Your task to perform on an android device: Search for the best rated kitchen reno kits on Lowes.com Image 0: 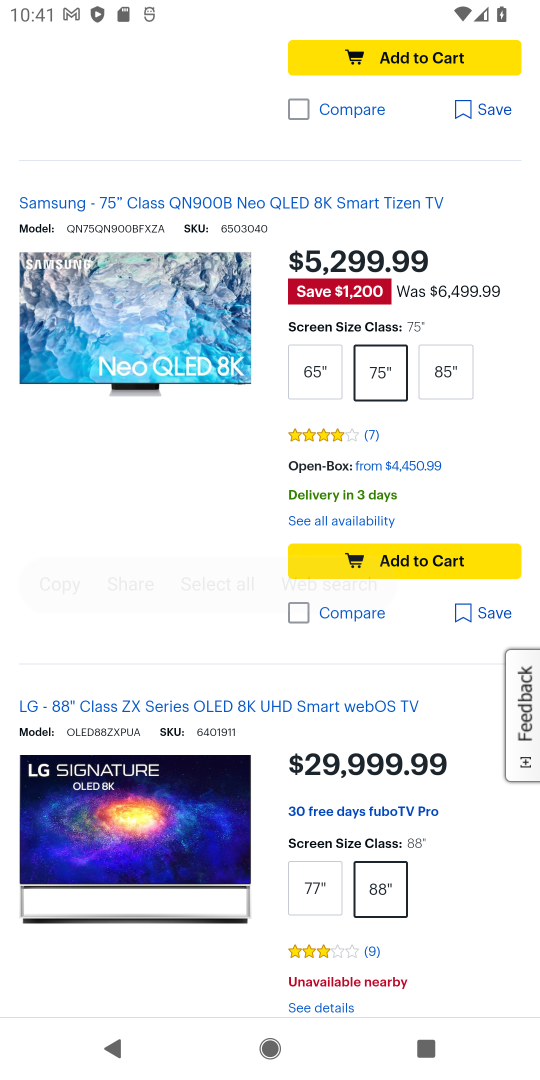
Step 0: press home button
Your task to perform on an android device: Search for the best rated kitchen reno kits on Lowes.com Image 1: 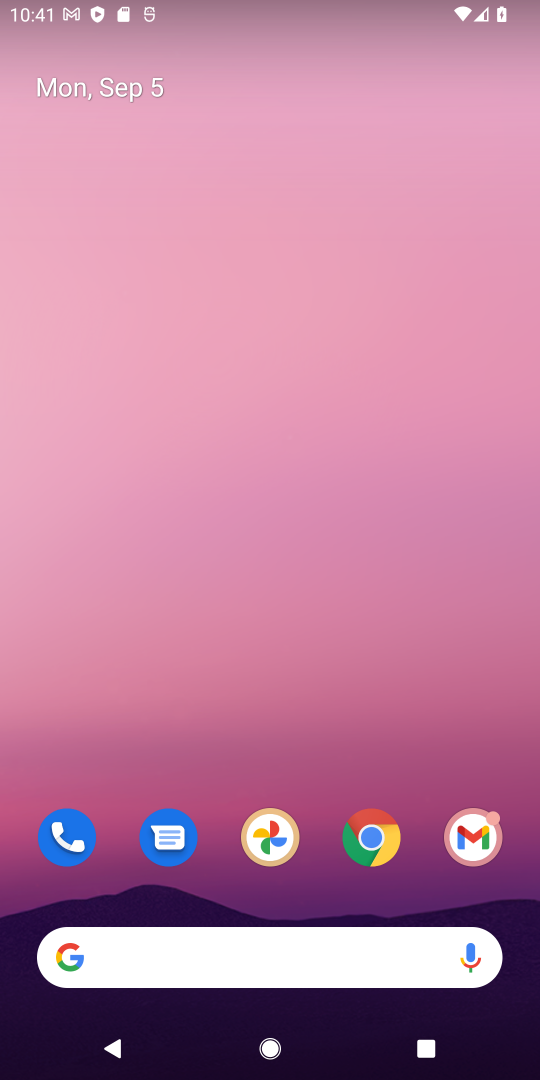
Step 1: drag from (312, 893) to (298, 241)
Your task to perform on an android device: Search for the best rated kitchen reno kits on Lowes.com Image 2: 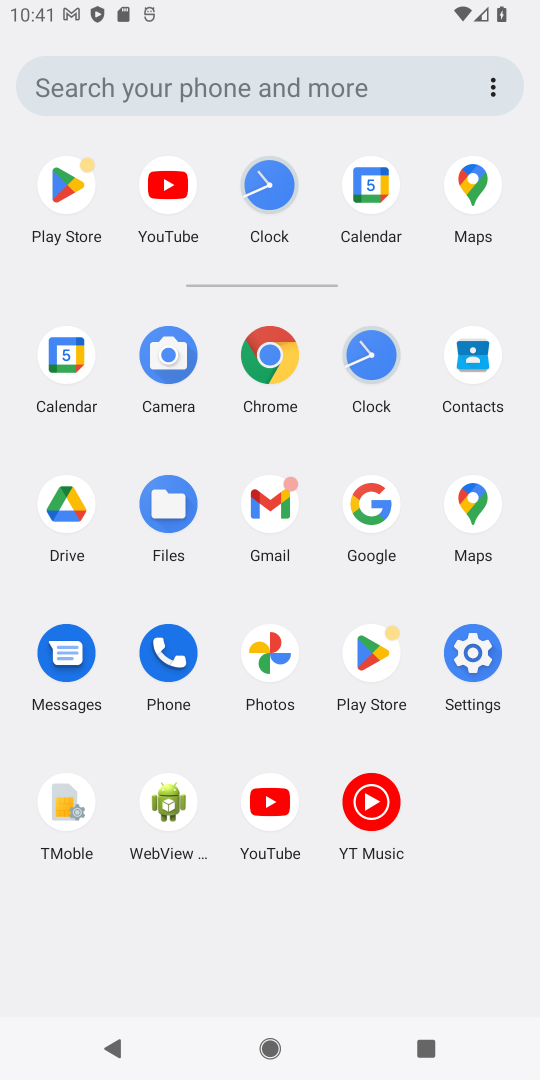
Step 2: click (276, 363)
Your task to perform on an android device: Search for the best rated kitchen reno kits on Lowes.com Image 3: 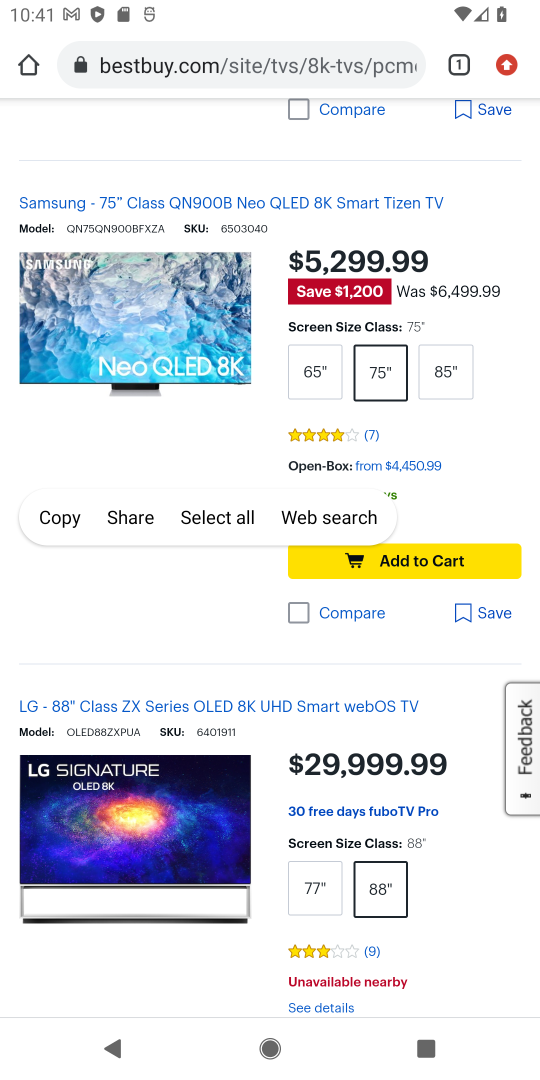
Step 3: click (160, 56)
Your task to perform on an android device: Search for the best rated kitchen reno kits on Lowes.com Image 4: 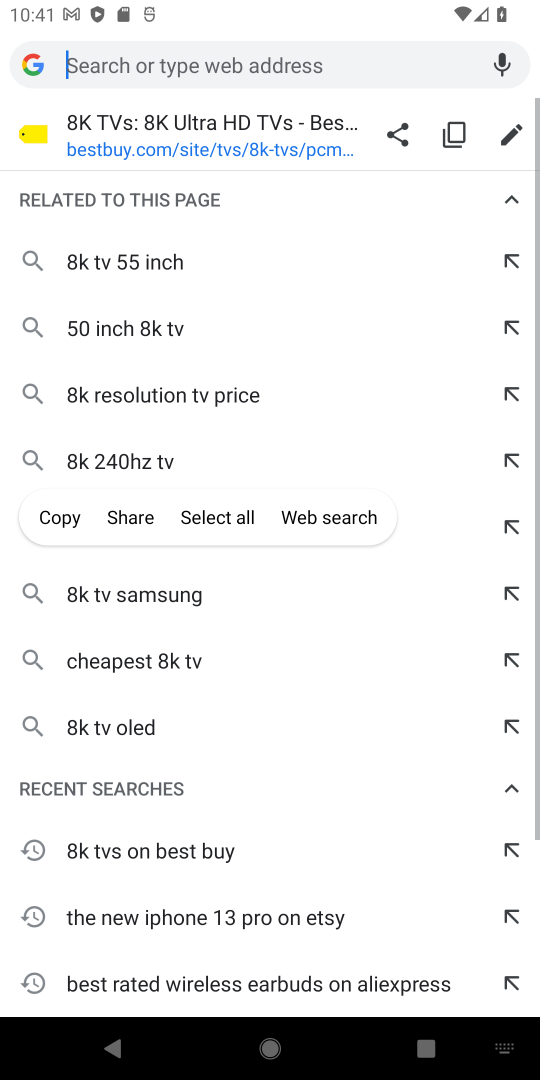
Step 4: type "best rated kitchen reno kits on Lowes.com"
Your task to perform on an android device: Search for the best rated kitchen reno kits on Lowes.com Image 5: 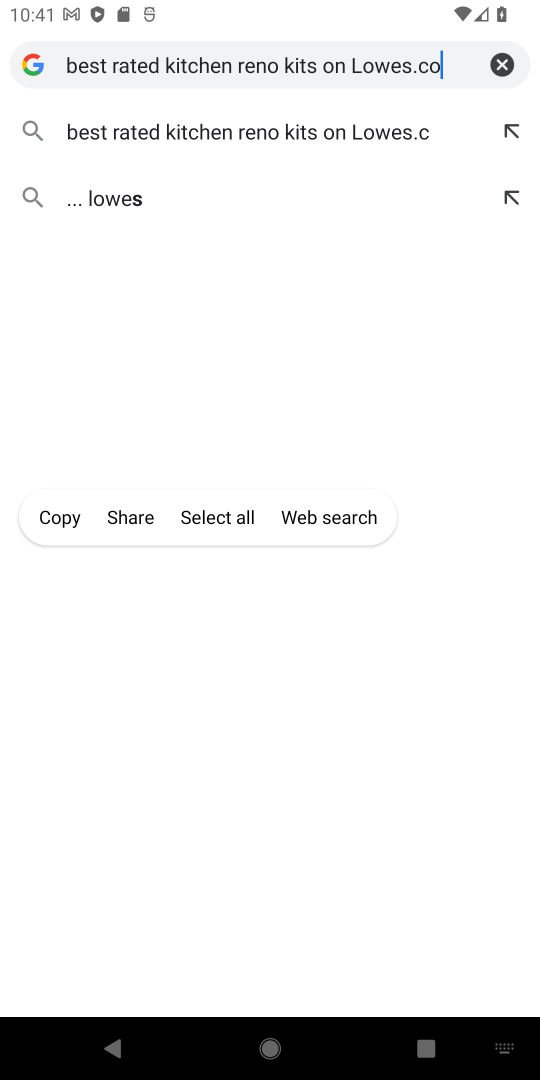
Step 5: type ""
Your task to perform on an android device: Search for the best rated kitchen reno kits on Lowes.com Image 6: 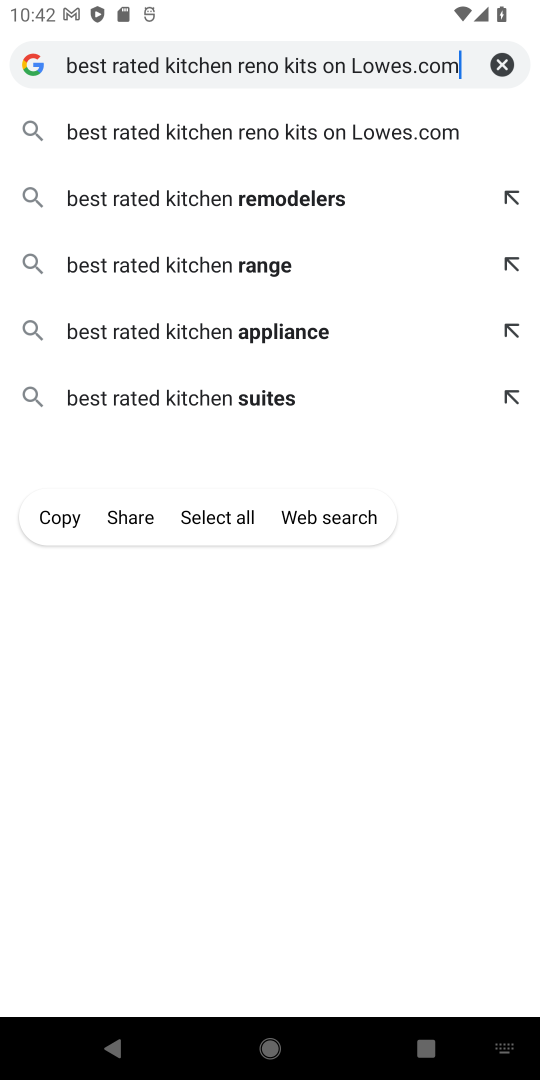
Step 6: click (320, 132)
Your task to perform on an android device: Search for the best rated kitchen reno kits on Lowes.com Image 7: 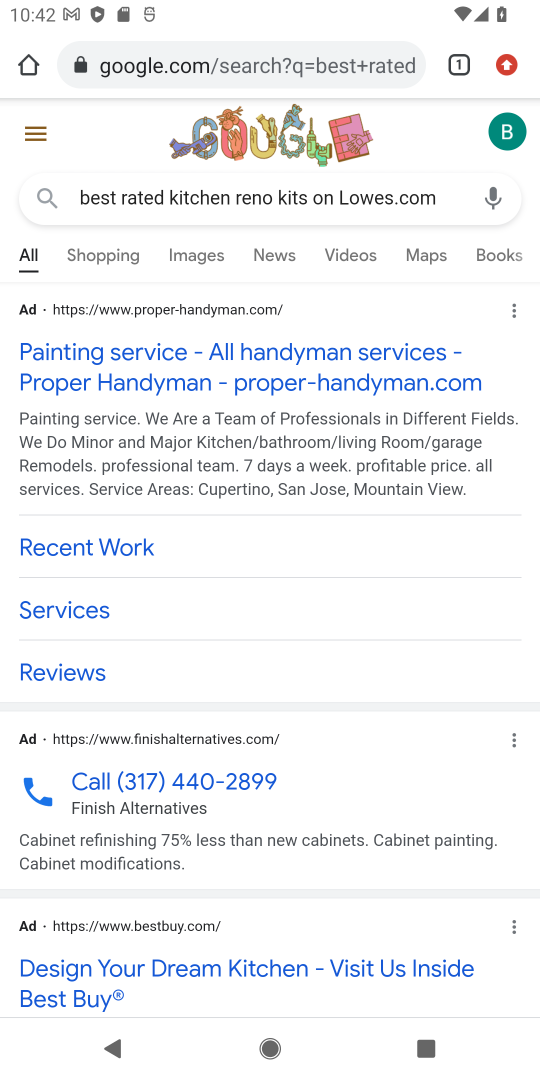
Step 7: drag from (291, 912) to (371, 232)
Your task to perform on an android device: Search for the best rated kitchen reno kits on Lowes.com Image 8: 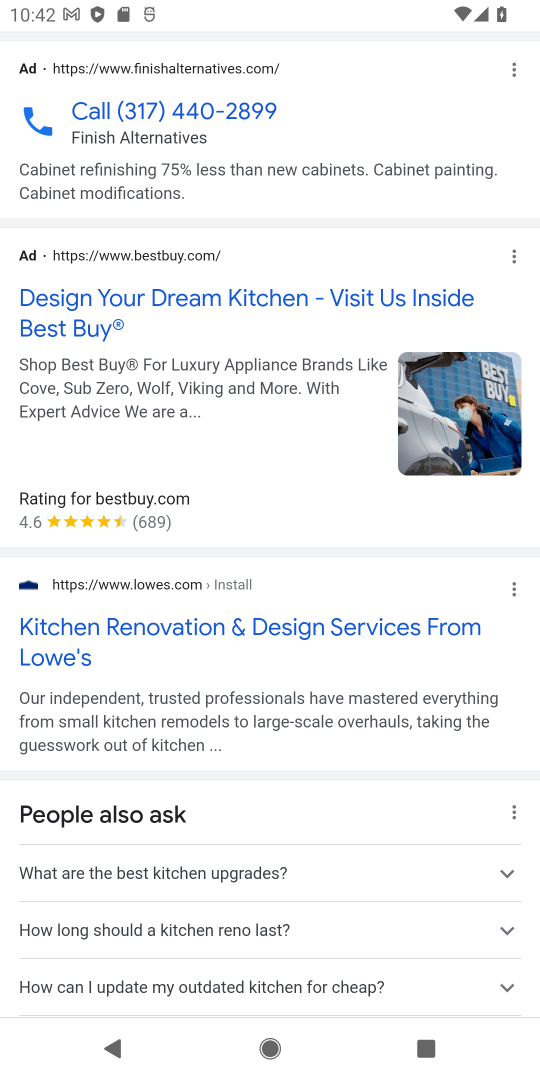
Step 8: drag from (252, 925) to (342, 320)
Your task to perform on an android device: Search for the best rated kitchen reno kits on Lowes.com Image 9: 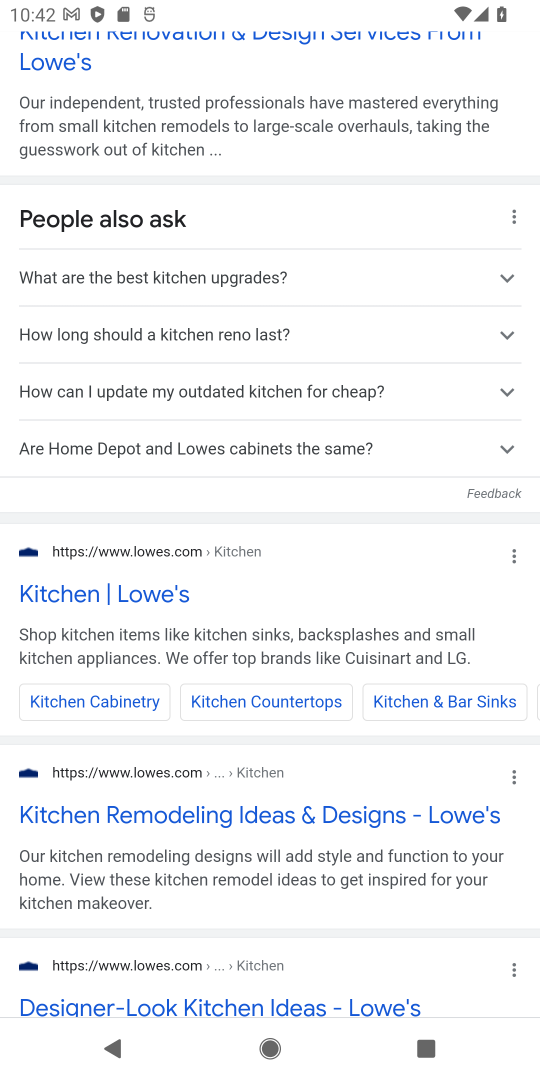
Step 9: drag from (311, 945) to (290, 1001)
Your task to perform on an android device: Search for the best rated kitchen reno kits on Lowes.com Image 10: 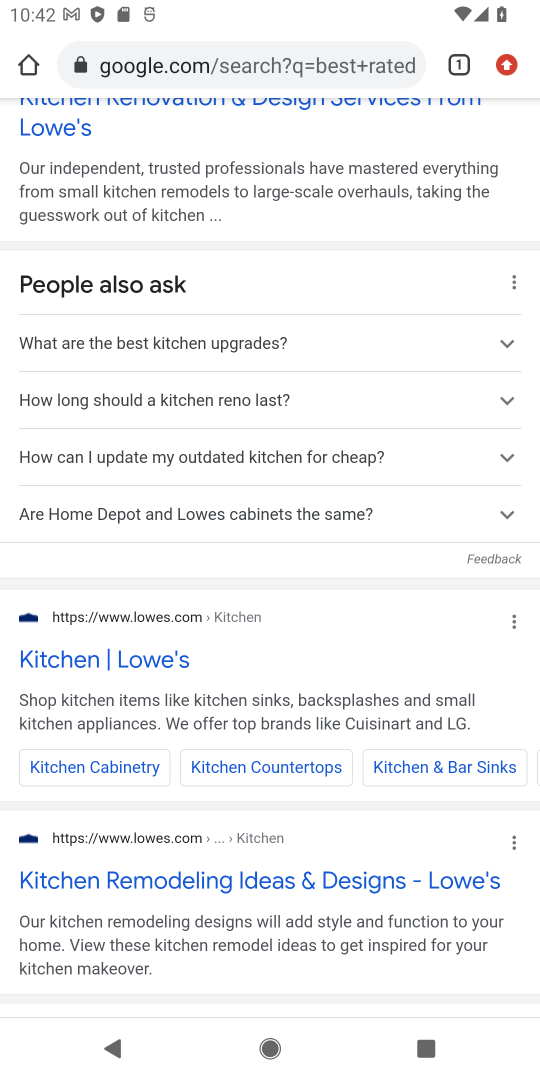
Step 10: click (156, 663)
Your task to perform on an android device: Search for the best rated kitchen reno kits on Lowes.com Image 11: 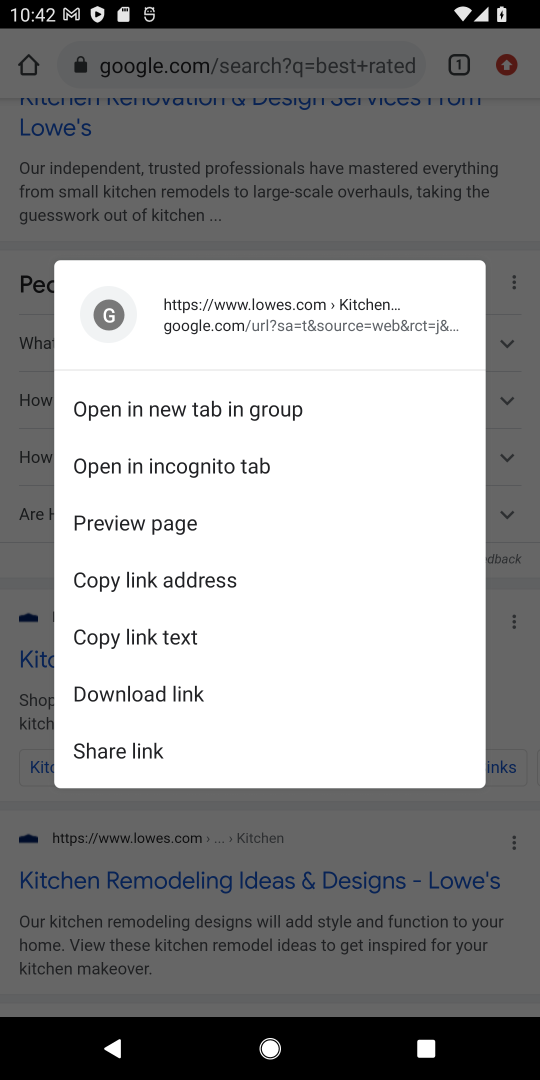
Step 11: click (306, 865)
Your task to perform on an android device: Search for the best rated kitchen reno kits on Lowes.com Image 12: 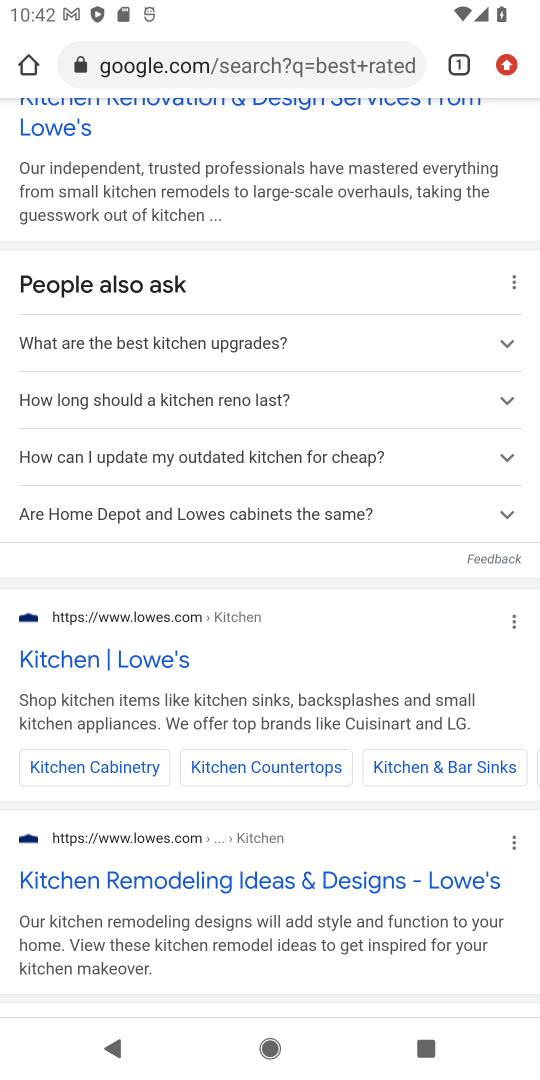
Step 12: click (169, 667)
Your task to perform on an android device: Search for the best rated kitchen reno kits on Lowes.com Image 13: 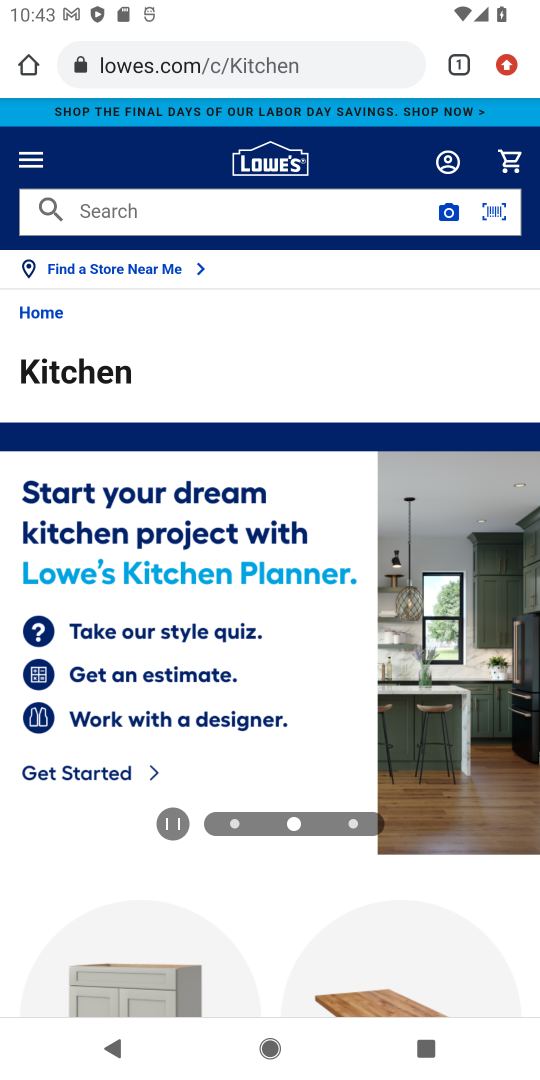
Step 13: drag from (253, 935) to (230, 334)
Your task to perform on an android device: Search for the best rated kitchen reno kits on Lowes.com Image 14: 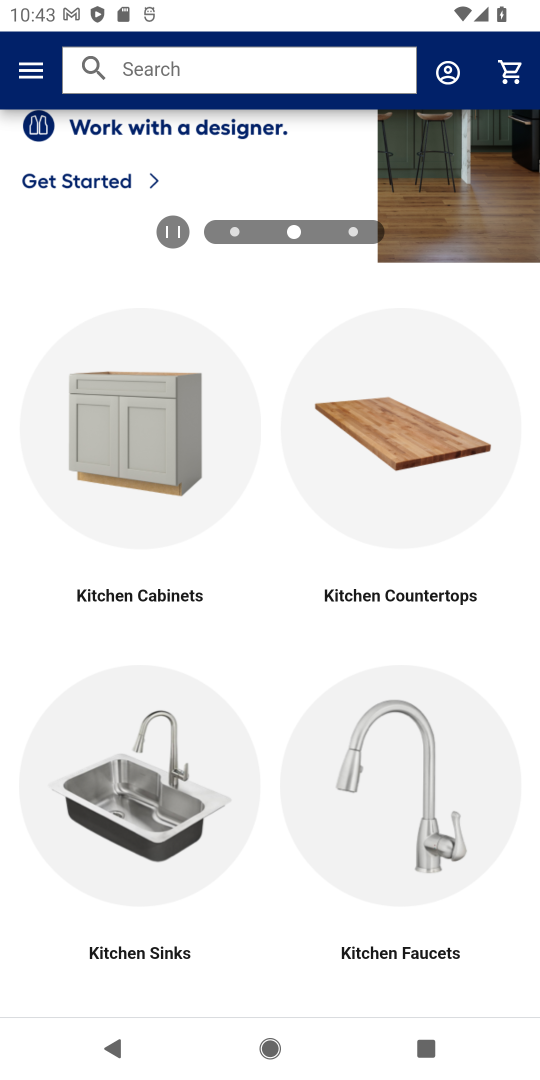
Step 14: drag from (271, 965) to (260, 280)
Your task to perform on an android device: Search for the best rated kitchen reno kits on Lowes.com Image 15: 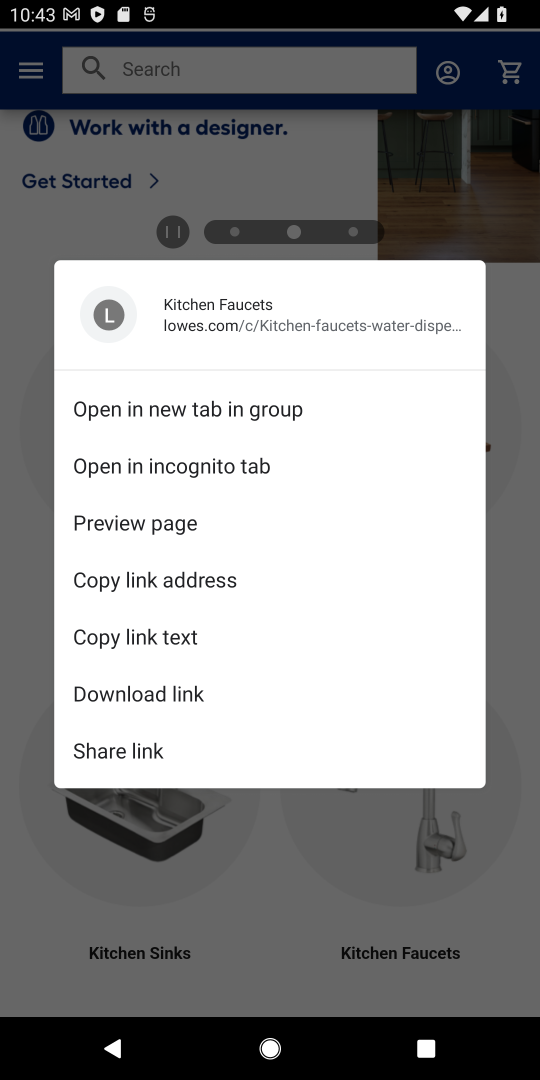
Step 15: click (287, 935)
Your task to perform on an android device: Search for the best rated kitchen reno kits on Lowes.com Image 16: 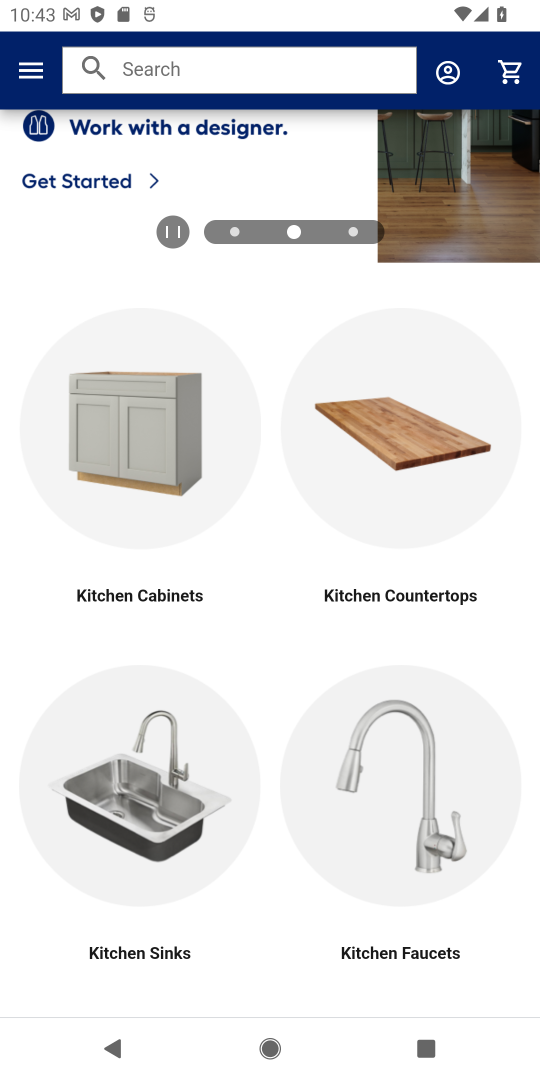
Step 16: task complete